Your task to perform on an android device: open wifi settings Image 0: 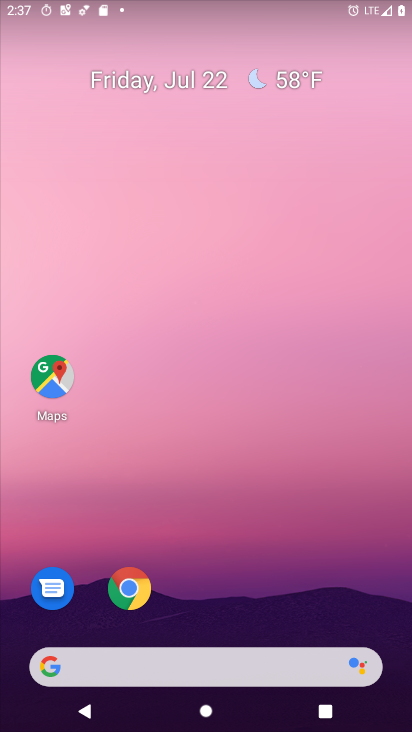
Step 0: drag from (255, 589) to (248, 56)
Your task to perform on an android device: open wifi settings Image 1: 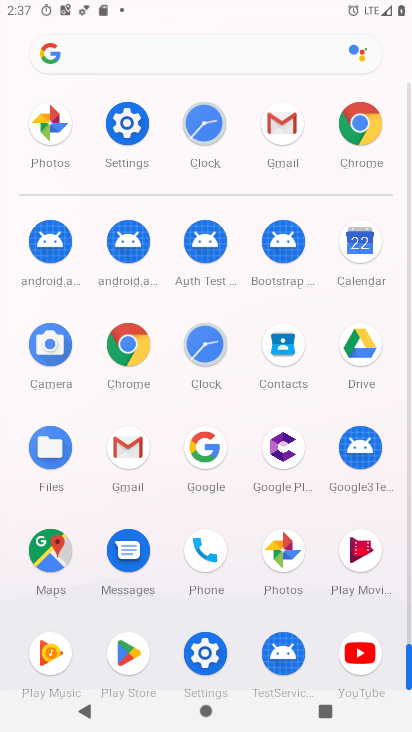
Step 1: drag from (116, 3) to (89, 548)
Your task to perform on an android device: open wifi settings Image 2: 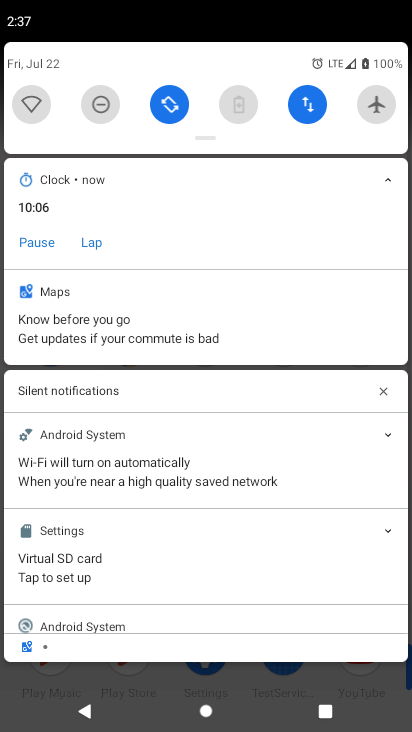
Step 2: click (25, 97)
Your task to perform on an android device: open wifi settings Image 3: 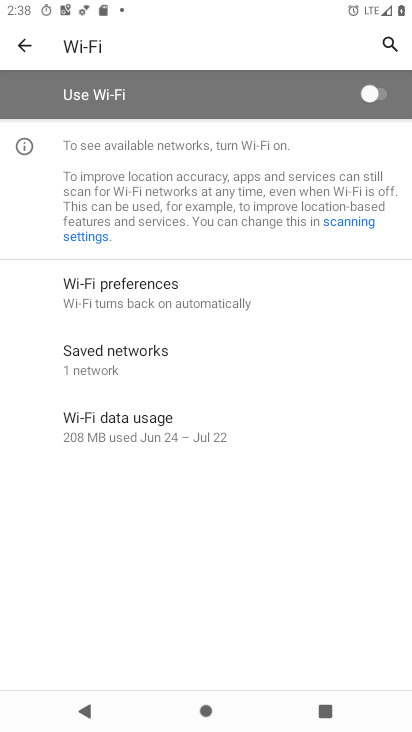
Step 3: task complete